Your task to perform on an android device: toggle translation in the chrome app Image 0: 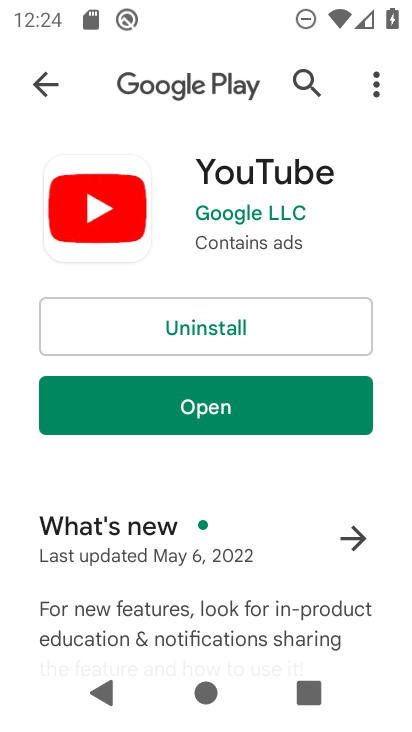
Step 0: press home button
Your task to perform on an android device: toggle translation in the chrome app Image 1: 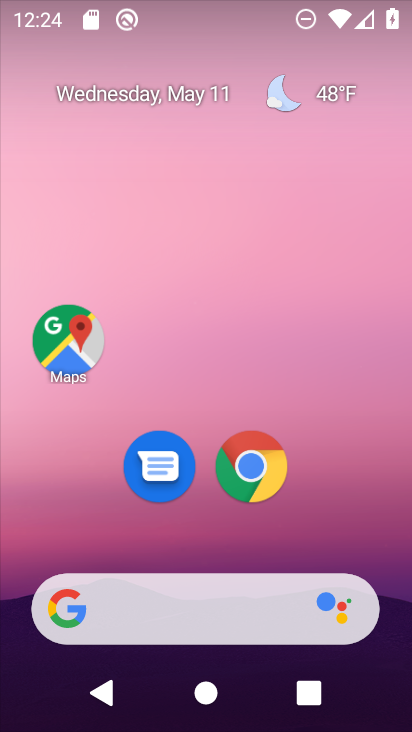
Step 1: drag from (206, 550) to (198, 125)
Your task to perform on an android device: toggle translation in the chrome app Image 2: 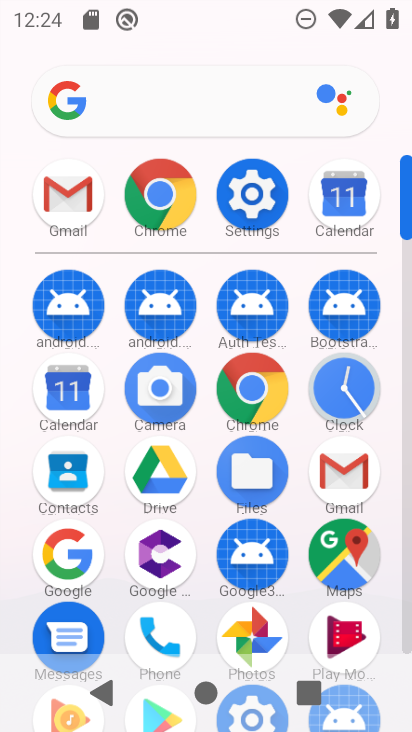
Step 2: click (247, 387)
Your task to perform on an android device: toggle translation in the chrome app Image 3: 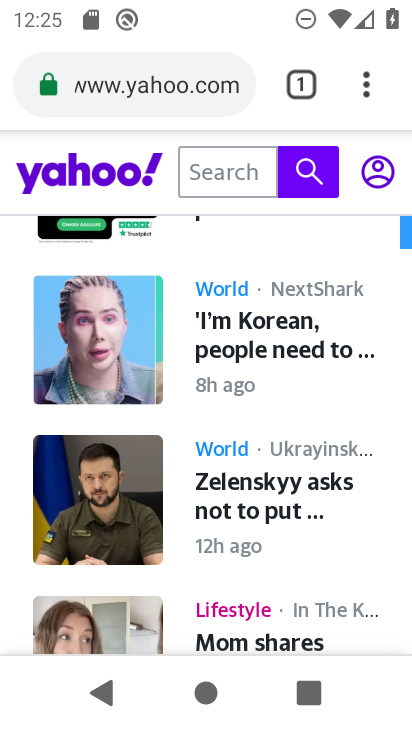
Step 3: click (364, 81)
Your task to perform on an android device: toggle translation in the chrome app Image 4: 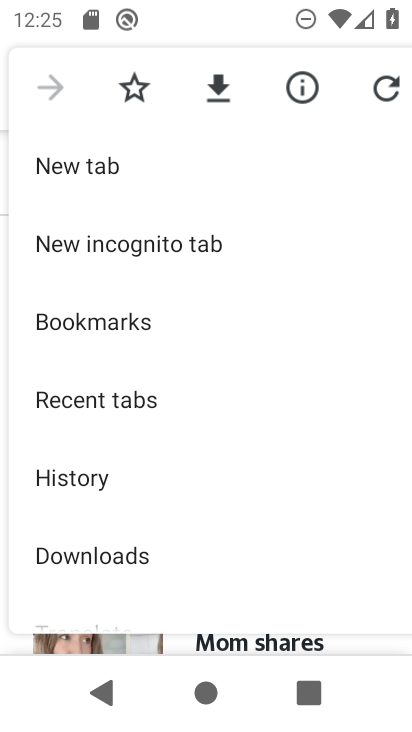
Step 4: drag from (198, 588) to (222, 80)
Your task to perform on an android device: toggle translation in the chrome app Image 5: 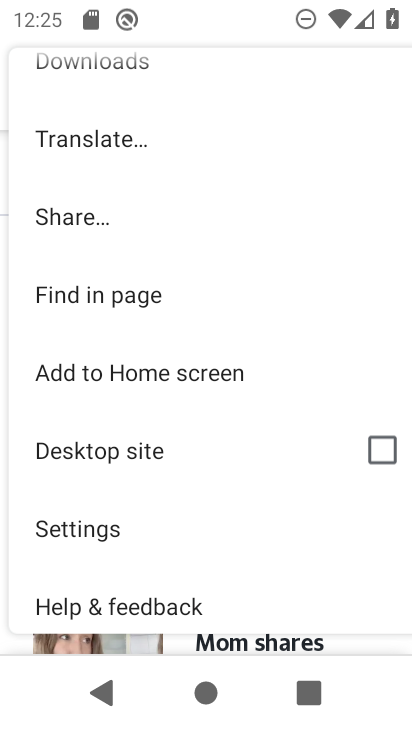
Step 5: click (132, 527)
Your task to perform on an android device: toggle translation in the chrome app Image 6: 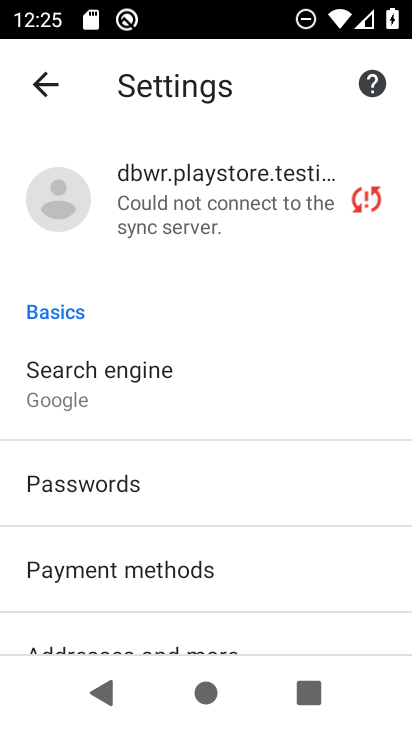
Step 6: drag from (261, 623) to (260, 213)
Your task to perform on an android device: toggle translation in the chrome app Image 7: 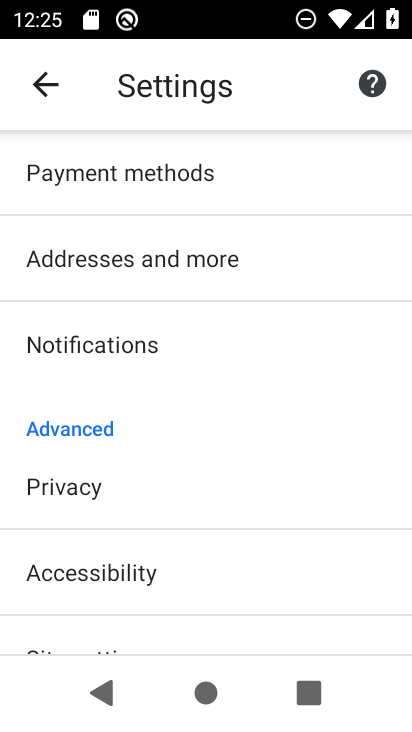
Step 7: drag from (223, 605) to (243, 145)
Your task to perform on an android device: toggle translation in the chrome app Image 8: 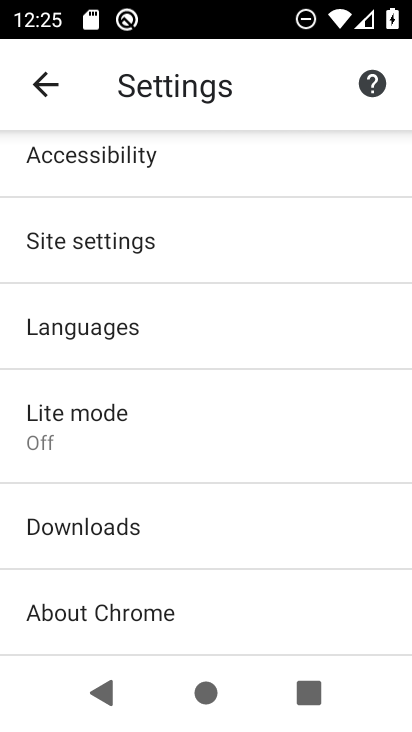
Step 8: click (176, 329)
Your task to perform on an android device: toggle translation in the chrome app Image 9: 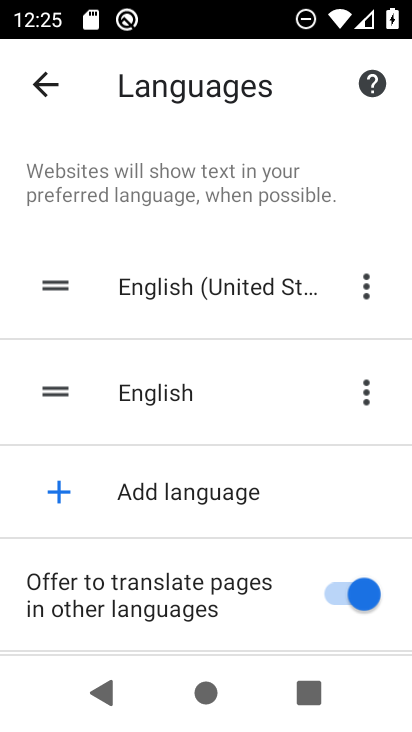
Step 9: click (344, 589)
Your task to perform on an android device: toggle translation in the chrome app Image 10: 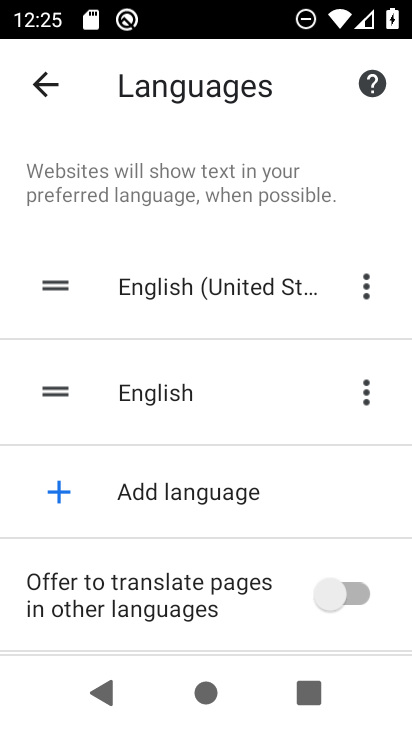
Step 10: task complete